Your task to perform on an android device: Open notification settings Image 0: 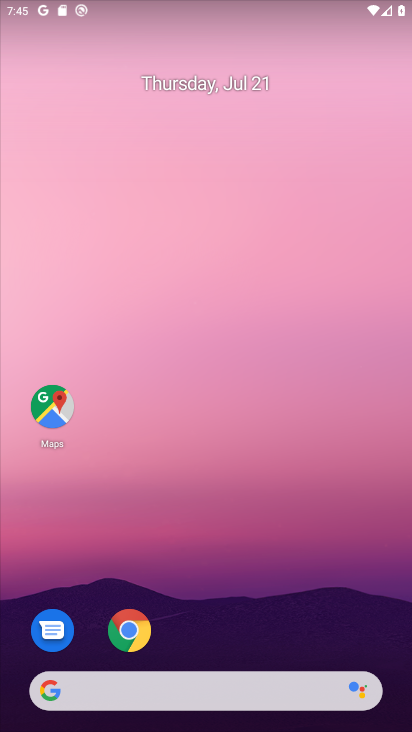
Step 0: drag from (213, 655) to (177, 9)
Your task to perform on an android device: Open notification settings Image 1: 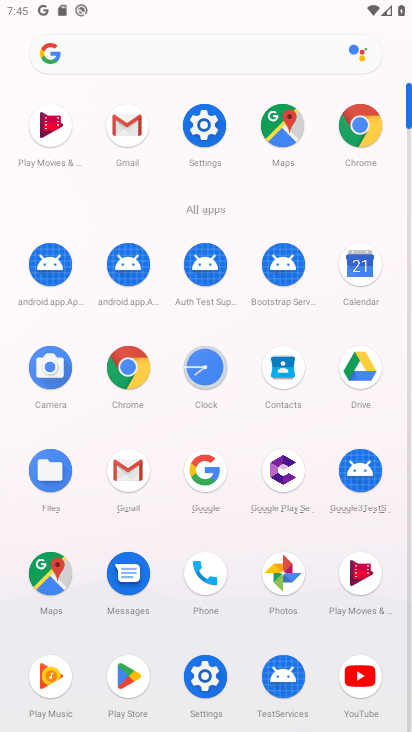
Step 1: click (191, 129)
Your task to perform on an android device: Open notification settings Image 2: 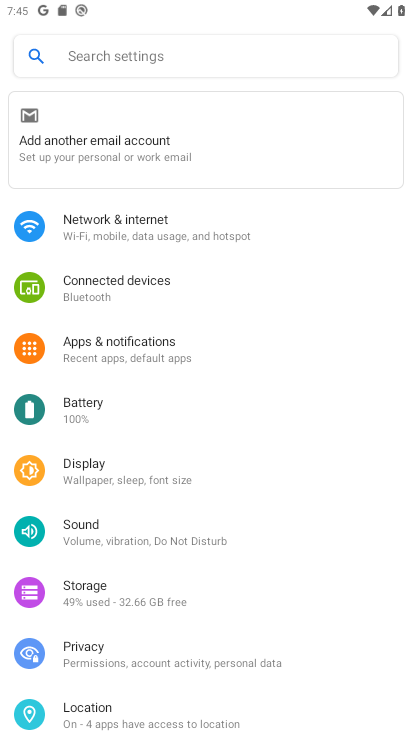
Step 2: click (141, 359)
Your task to perform on an android device: Open notification settings Image 3: 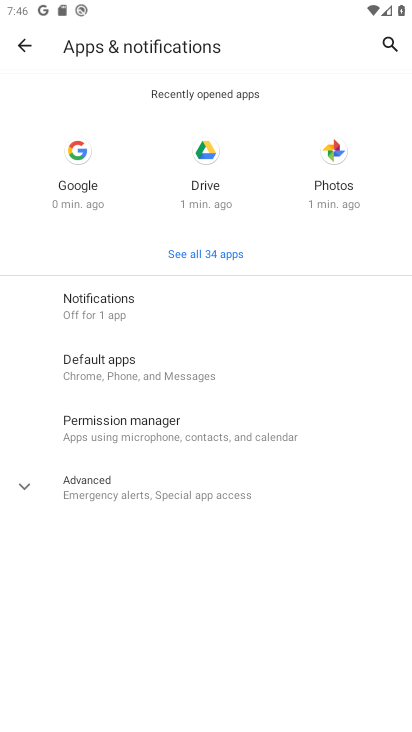
Step 3: click (105, 315)
Your task to perform on an android device: Open notification settings Image 4: 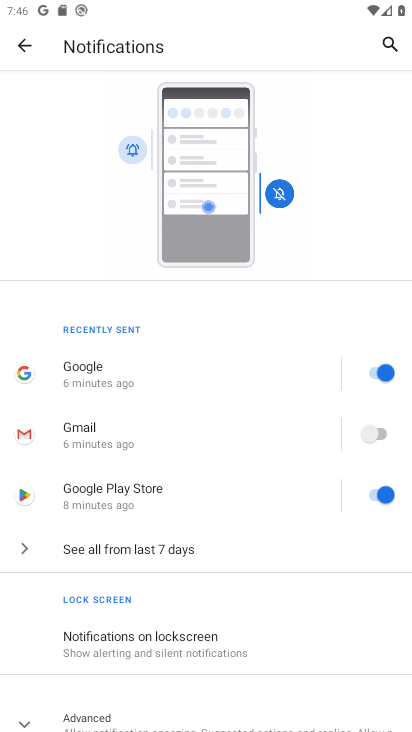
Step 4: task complete